Your task to perform on an android device: Open sound settings Image 0: 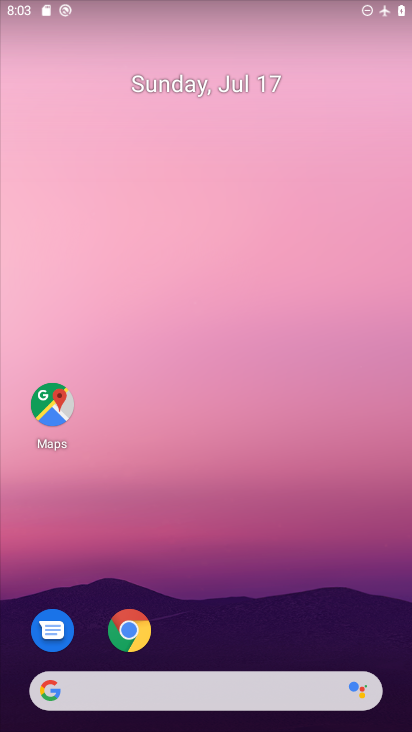
Step 0: drag from (337, 626) to (204, 8)
Your task to perform on an android device: Open sound settings Image 1: 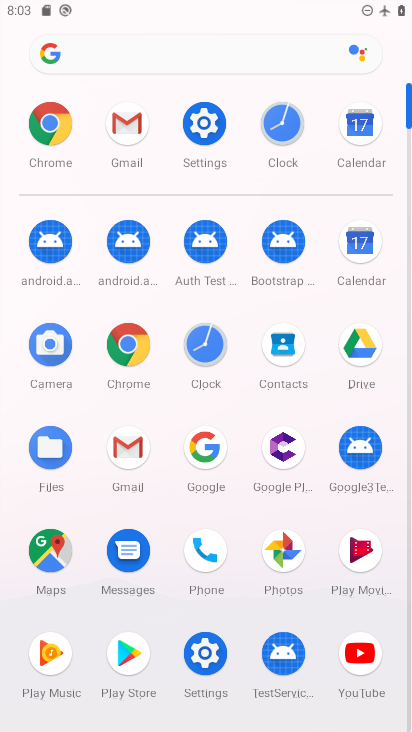
Step 1: click (217, 639)
Your task to perform on an android device: Open sound settings Image 2: 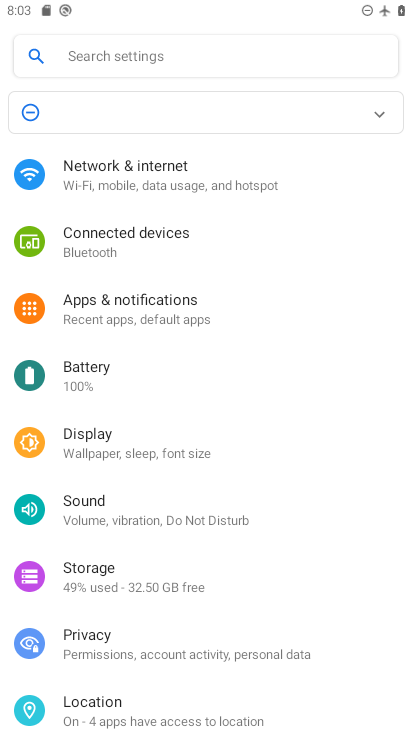
Step 2: click (85, 520)
Your task to perform on an android device: Open sound settings Image 3: 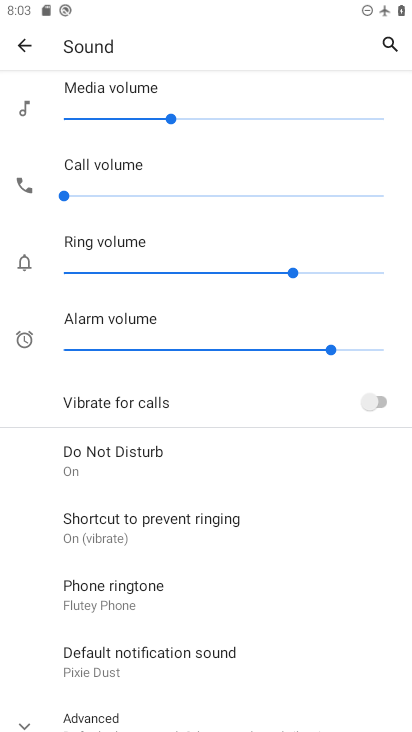
Step 3: task complete